Your task to perform on an android device: Show me popular games on the Play Store Image 0: 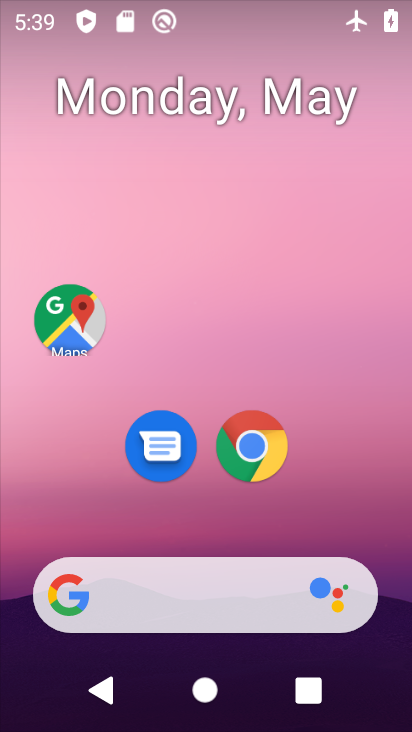
Step 0: drag from (322, 501) to (226, 69)
Your task to perform on an android device: Show me popular games on the Play Store Image 1: 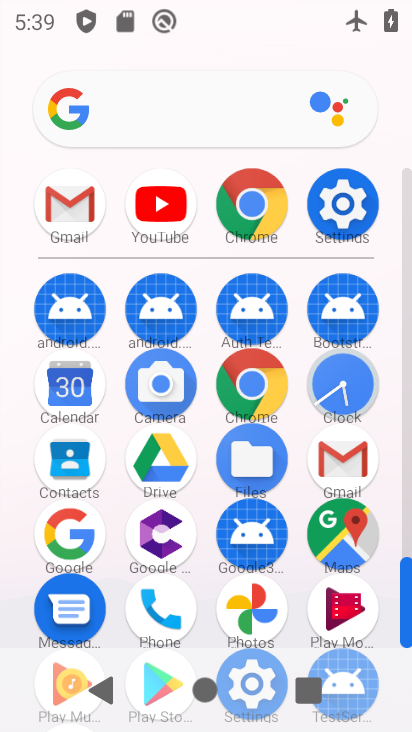
Step 1: drag from (207, 583) to (184, 316)
Your task to perform on an android device: Show me popular games on the Play Store Image 2: 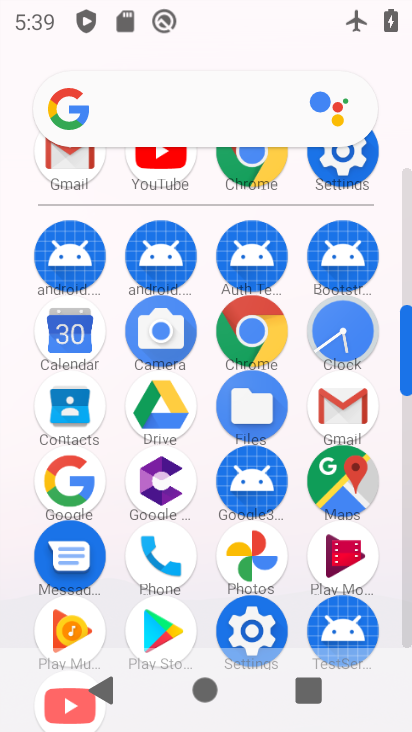
Step 2: click (168, 625)
Your task to perform on an android device: Show me popular games on the Play Store Image 3: 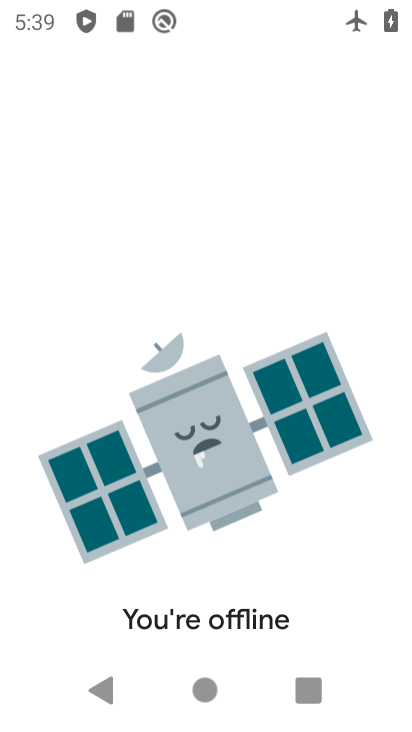
Step 3: task complete